Your task to perform on an android device: What's on my calendar today? Image 0: 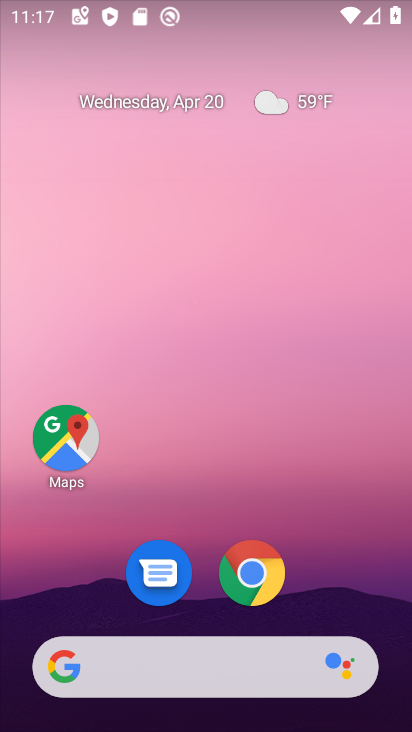
Step 0: drag from (374, 585) to (376, 24)
Your task to perform on an android device: What's on my calendar today? Image 1: 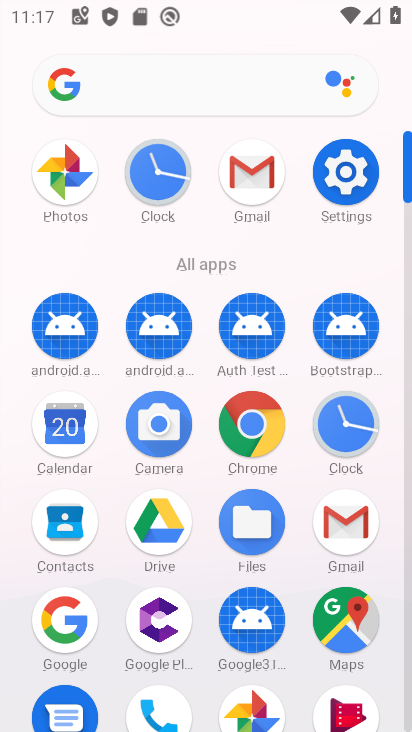
Step 1: click (64, 429)
Your task to perform on an android device: What's on my calendar today? Image 2: 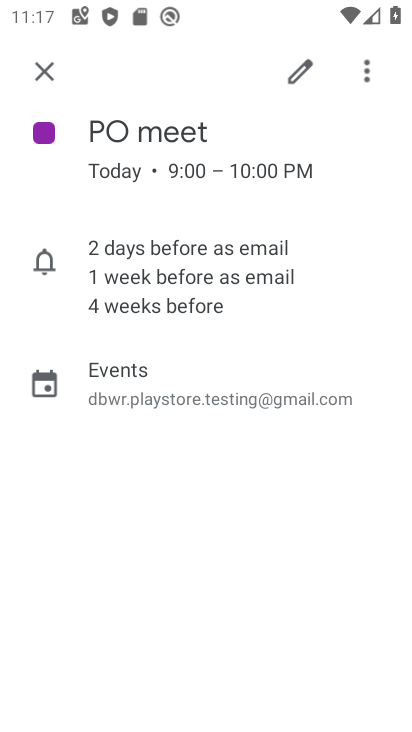
Step 2: click (51, 71)
Your task to perform on an android device: What's on my calendar today? Image 3: 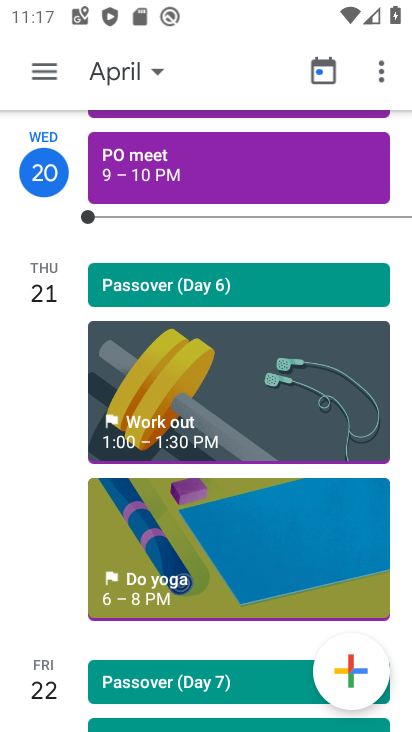
Step 3: click (156, 75)
Your task to perform on an android device: What's on my calendar today? Image 4: 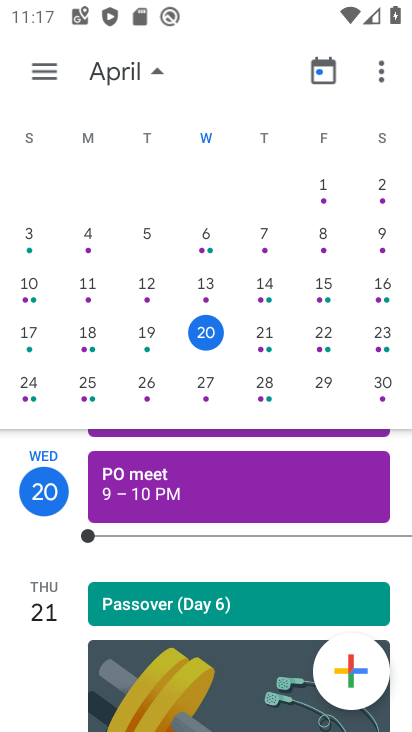
Step 4: click (203, 331)
Your task to perform on an android device: What's on my calendar today? Image 5: 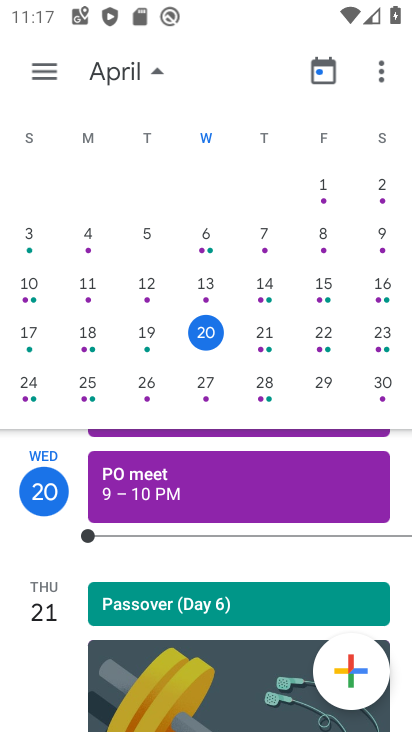
Step 5: drag from (198, 524) to (184, 604)
Your task to perform on an android device: What's on my calendar today? Image 6: 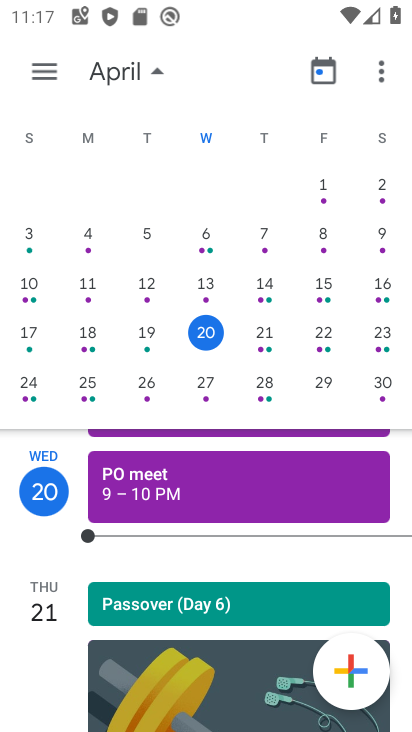
Step 6: drag from (132, 488) to (141, 622)
Your task to perform on an android device: What's on my calendar today? Image 7: 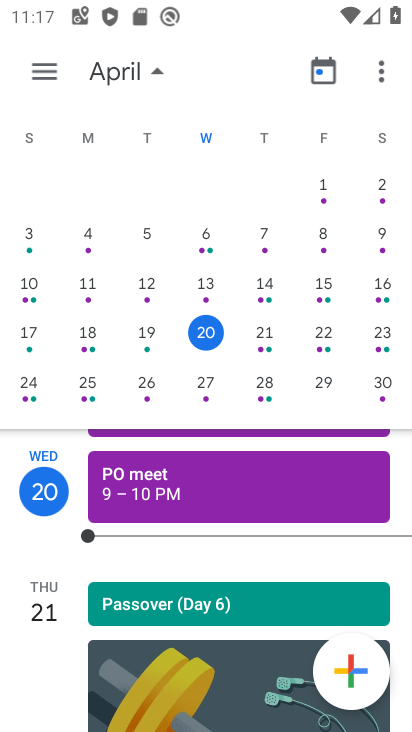
Step 7: drag from (139, 453) to (137, 532)
Your task to perform on an android device: What's on my calendar today? Image 8: 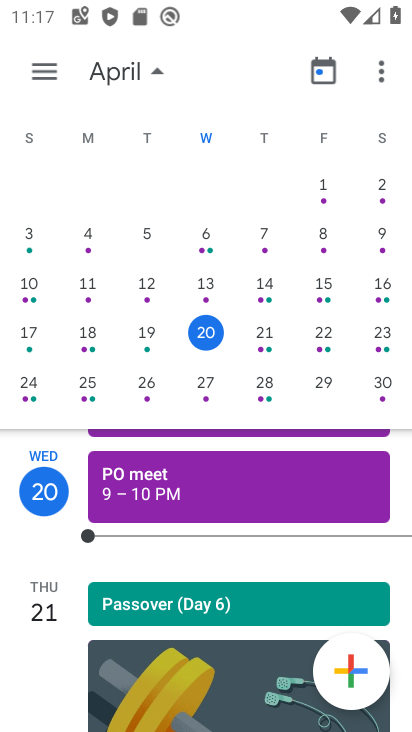
Step 8: click (137, 493)
Your task to perform on an android device: What's on my calendar today? Image 9: 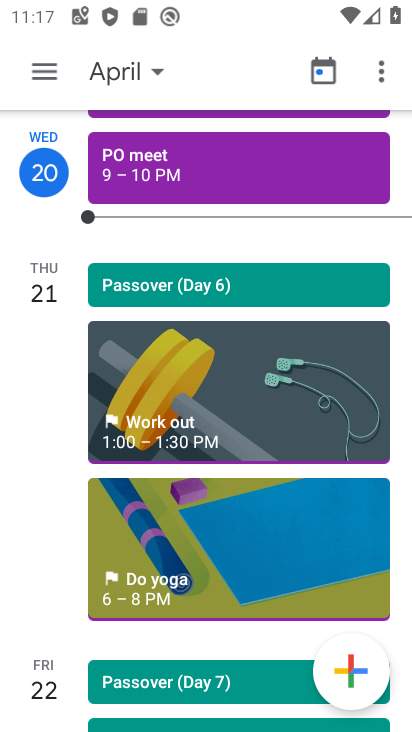
Step 9: click (241, 483)
Your task to perform on an android device: What's on my calendar today? Image 10: 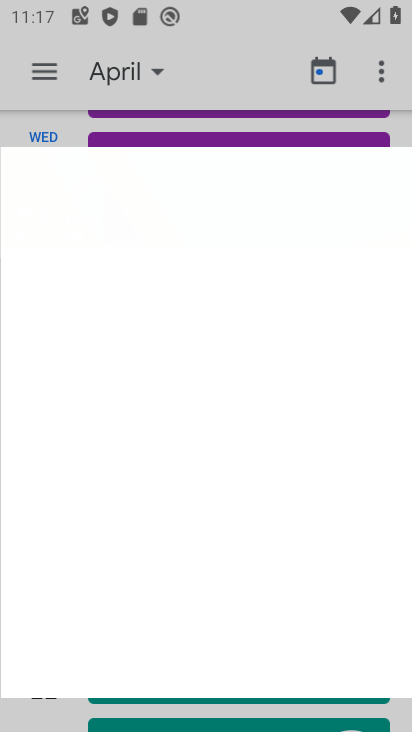
Step 10: drag from (225, 404) to (214, 580)
Your task to perform on an android device: What's on my calendar today? Image 11: 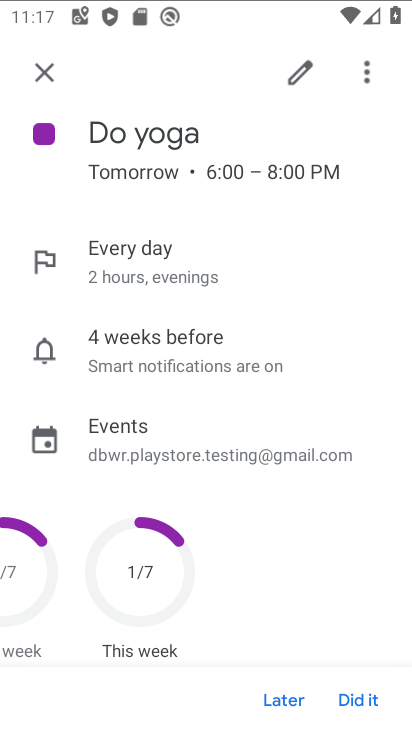
Step 11: click (50, 88)
Your task to perform on an android device: What's on my calendar today? Image 12: 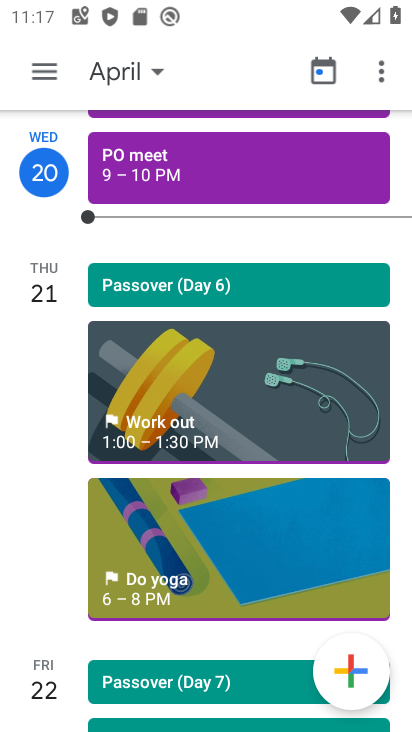
Step 12: click (197, 163)
Your task to perform on an android device: What's on my calendar today? Image 13: 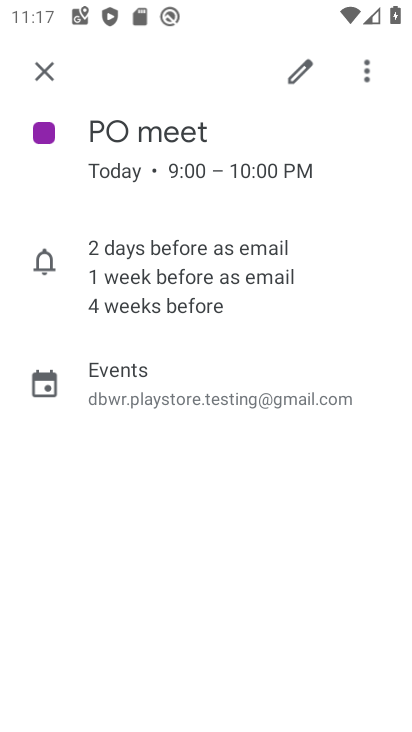
Step 13: task complete